Your task to perform on an android device: Go to Wikipedia Image 0: 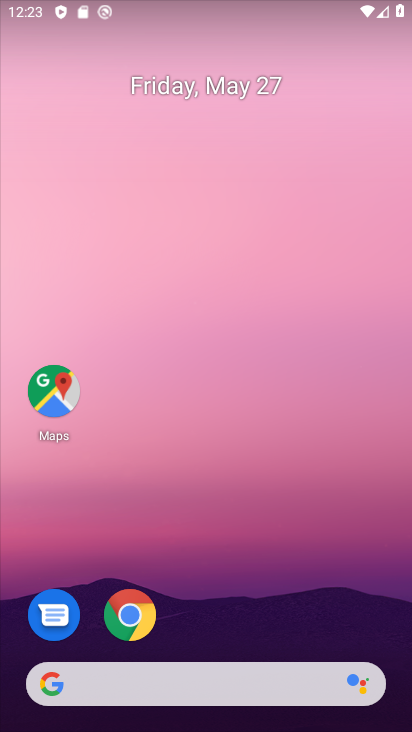
Step 0: drag from (269, 630) to (331, 0)
Your task to perform on an android device: Go to Wikipedia Image 1: 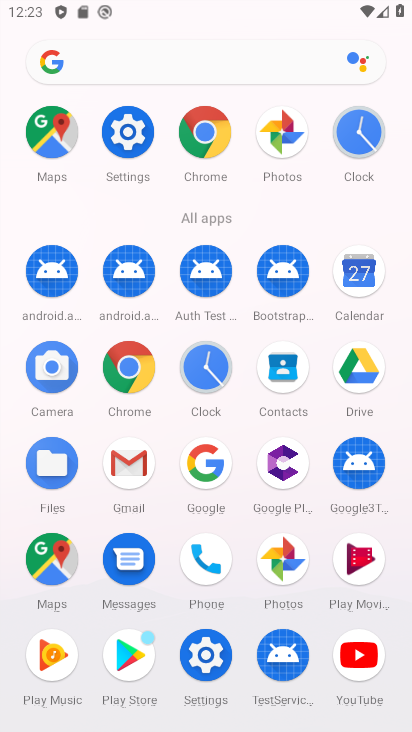
Step 1: click (137, 379)
Your task to perform on an android device: Go to Wikipedia Image 2: 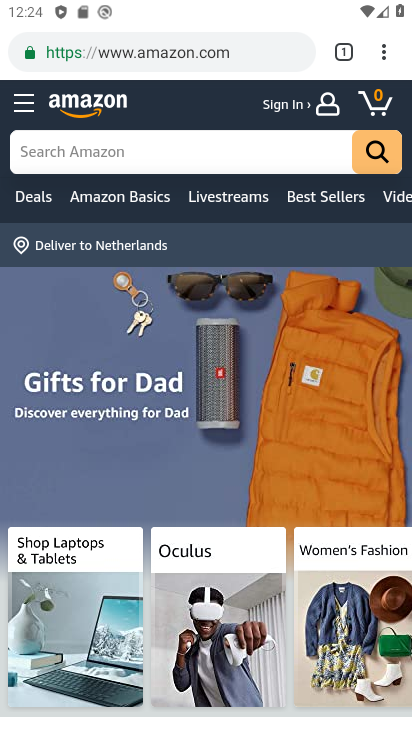
Step 2: click (335, 59)
Your task to perform on an android device: Go to Wikipedia Image 3: 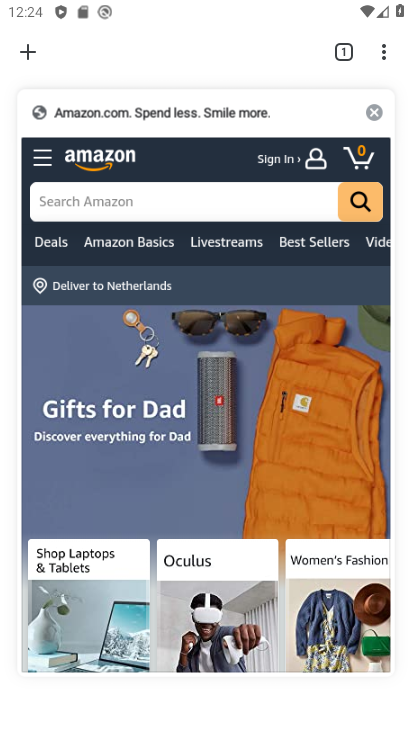
Step 3: click (33, 58)
Your task to perform on an android device: Go to Wikipedia Image 4: 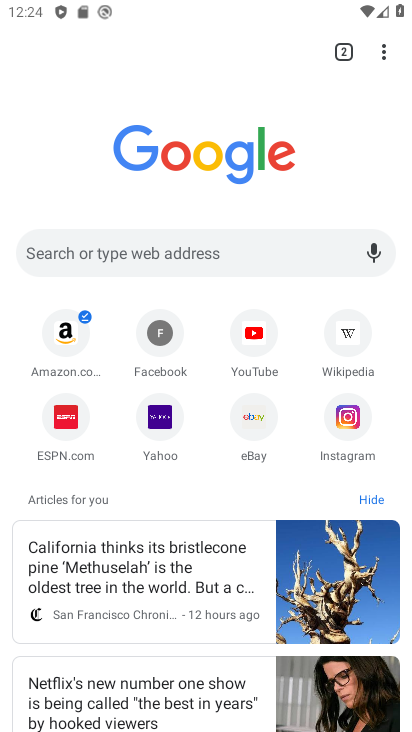
Step 4: click (358, 354)
Your task to perform on an android device: Go to Wikipedia Image 5: 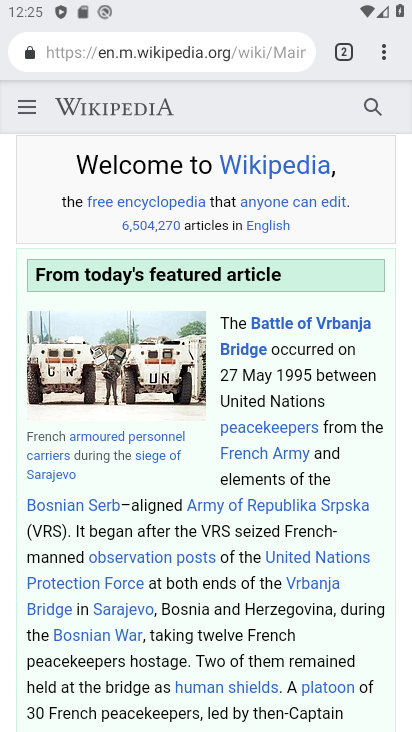
Step 5: task complete